Your task to perform on an android device: change keyboard looks Image 0: 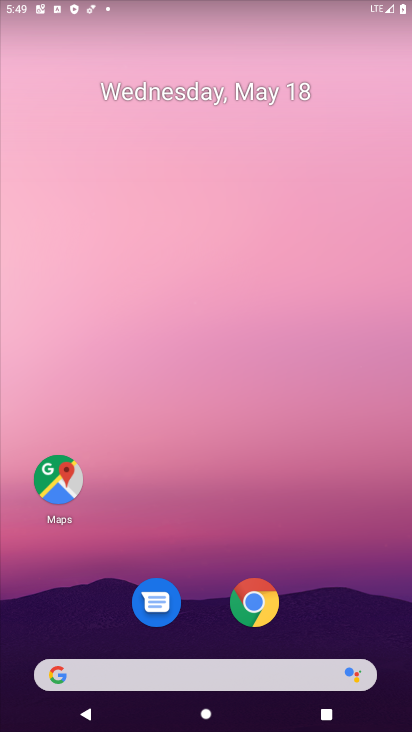
Step 0: drag from (223, 655) to (246, 0)
Your task to perform on an android device: change keyboard looks Image 1: 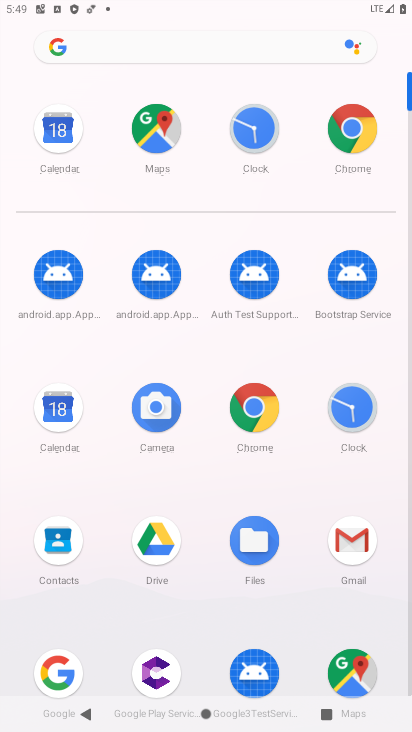
Step 1: drag from (279, 614) to (332, 199)
Your task to perform on an android device: change keyboard looks Image 2: 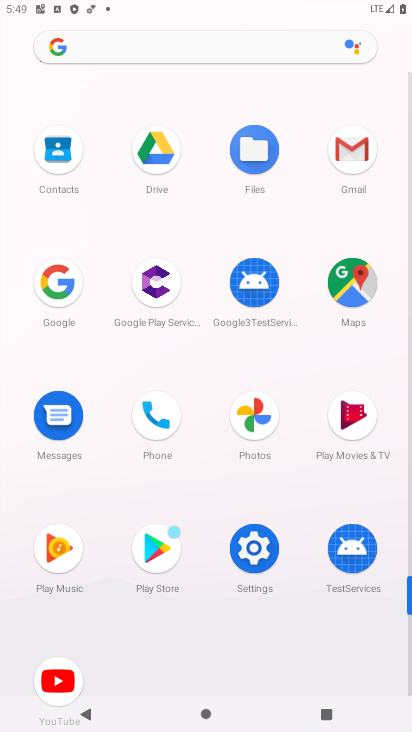
Step 2: click (262, 554)
Your task to perform on an android device: change keyboard looks Image 3: 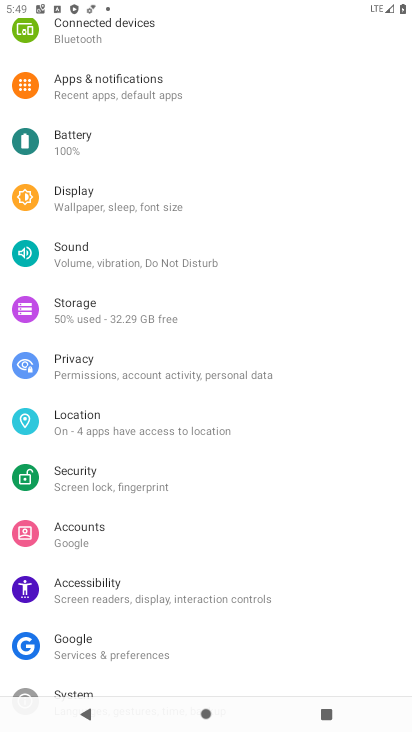
Step 3: drag from (169, 656) to (215, 94)
Your task to perform on an android device: change keyboard looks Image 4: 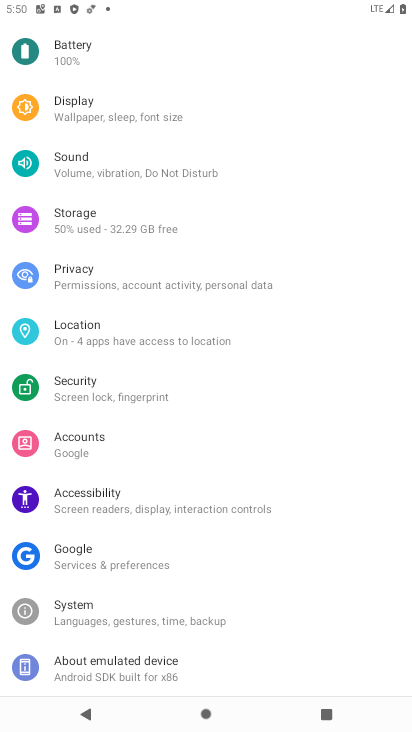
Step 4: click (97, 606)
Your task to perform on an android device: change keyboard looks Image 5: 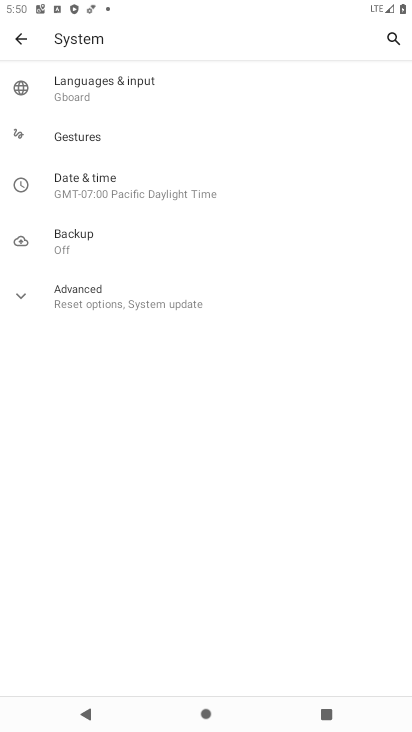
Step 5: click (114, 89)
Your task to perform on an android device: change keyboard looks Image 6: 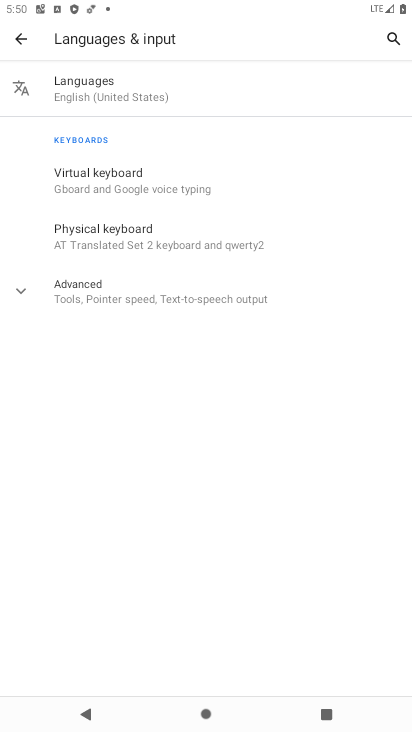
Step 6: click (101, 192)
Your task to perform on an android device: change keyboard looks Image 7: 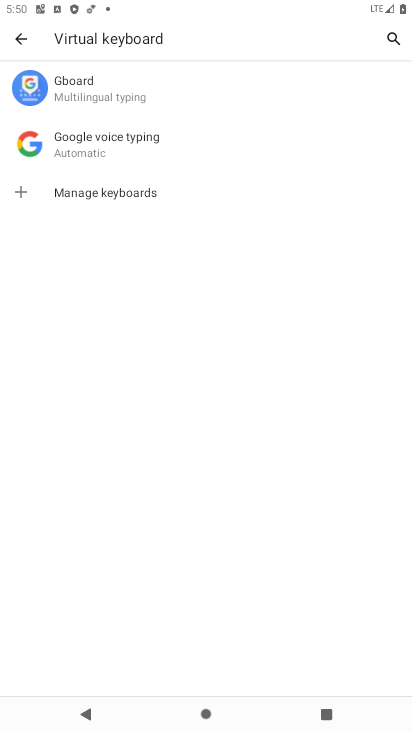
Step 7: click (119, 85)
Your task to perform on an android device: change keyboard looks Image 8: 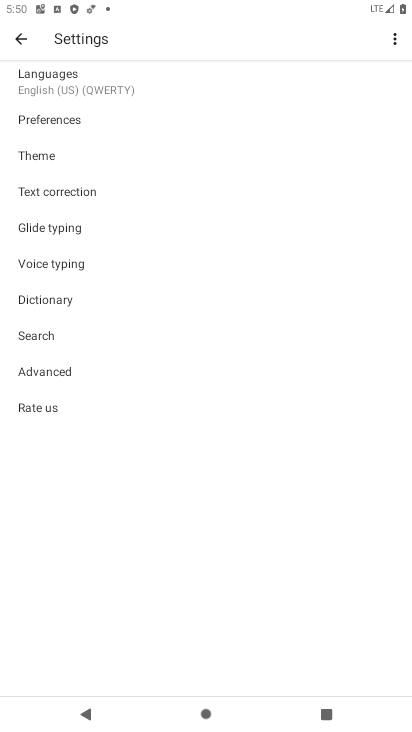
Step 8: click (65, 154)
Your task to perform on an android device: change keyboard looks Image 9: 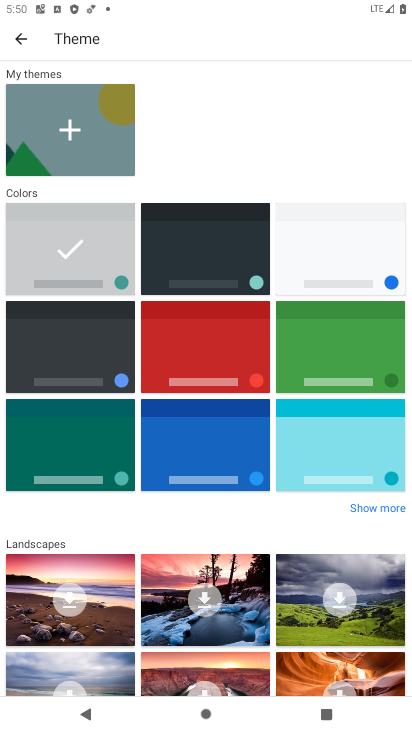
Step 9: click (312, 358)
Your task to perform on an android device: change keyboard looks Image 10: 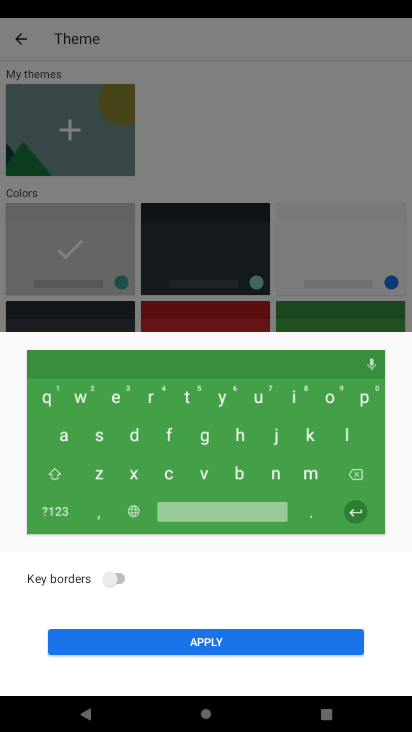
Step 10: click (234, 638)
Your task to perform on an android device: change keyboard looks Image 11: 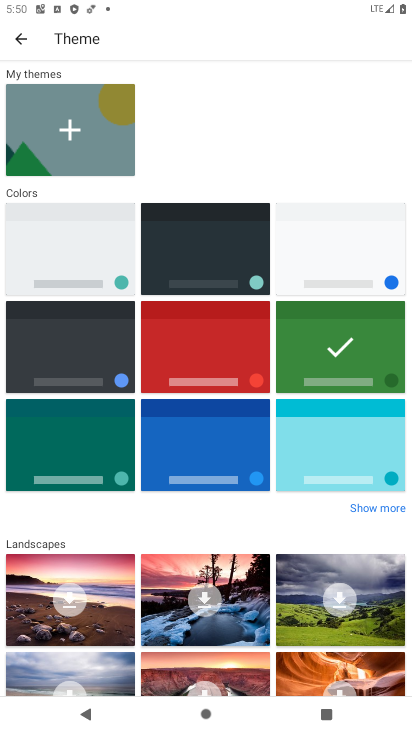
Step 11: task complete